Your task to perform on an android device: turn off improve location accuracy Image 0: 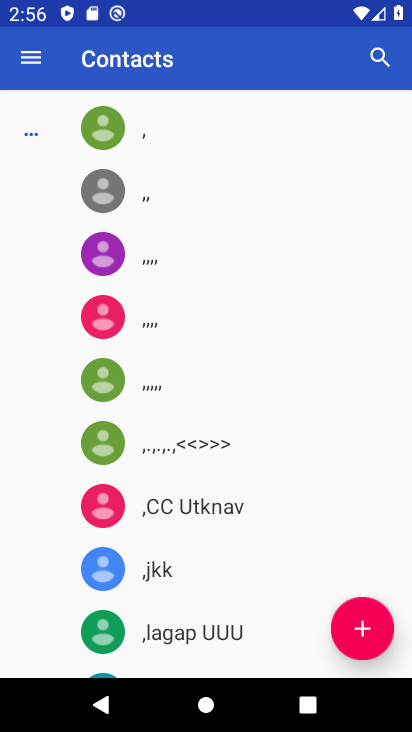
Step 0: press home button
Your task to perform on an android device: turn off improve location accuracy Image 1: 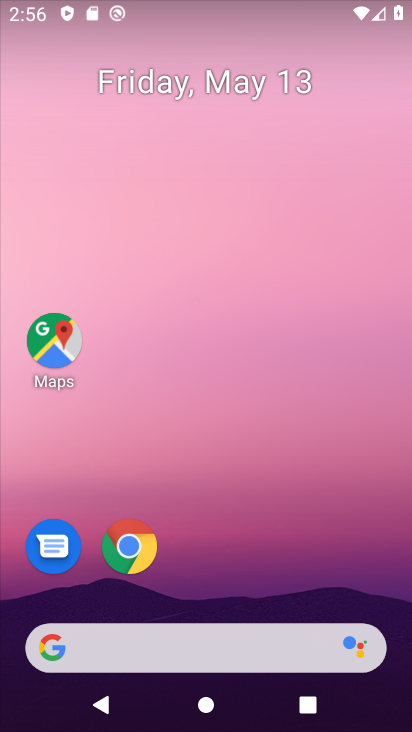
Step 1: drag from (207, 602) to (292, 42)
Your task to perform on an android device: turn off improve location accuracy Image 2: 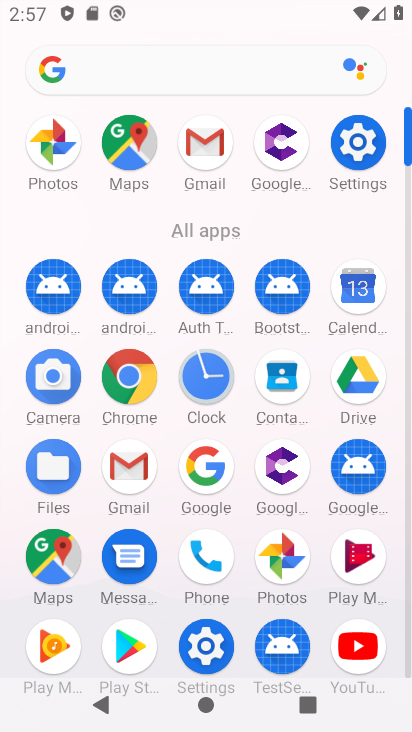
Step 2: click (351, 132)
Your task to perform on an android device: turn off improve location accuracy Image 3: 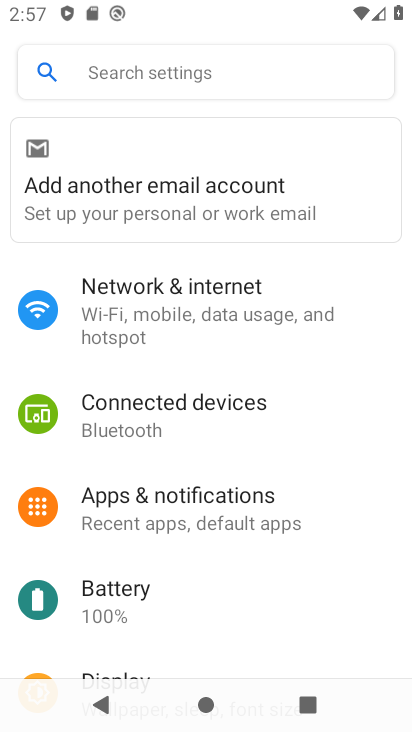
Step 3: drag from (174, 647) to (243, 158)
Your task to perform on an android device: turn off improve location accuracy Image 4: 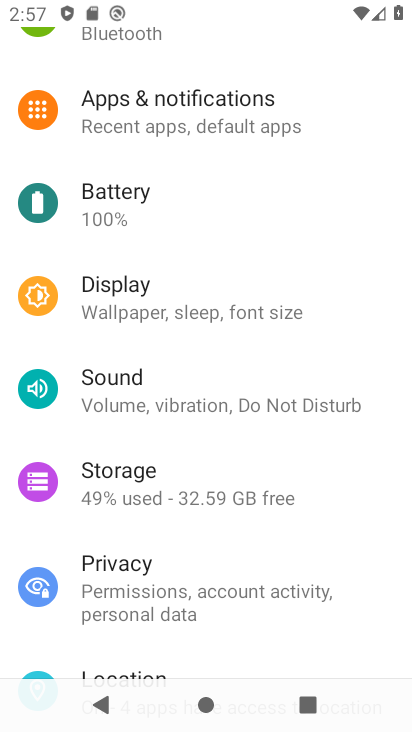
Step 4: drag from (151, 629) to (250, 292)
Your task to perform on an android device: turn off improve location accuracy Image 5: 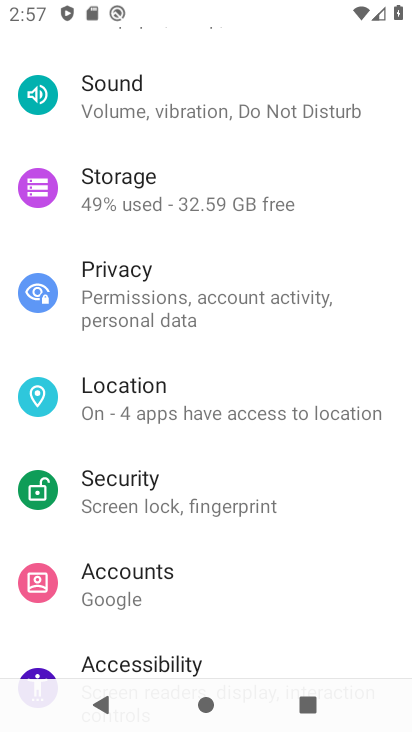
Step 5: click (157, 420)
Your task to perform on an android device: turn off improve location accuracy Image 6: 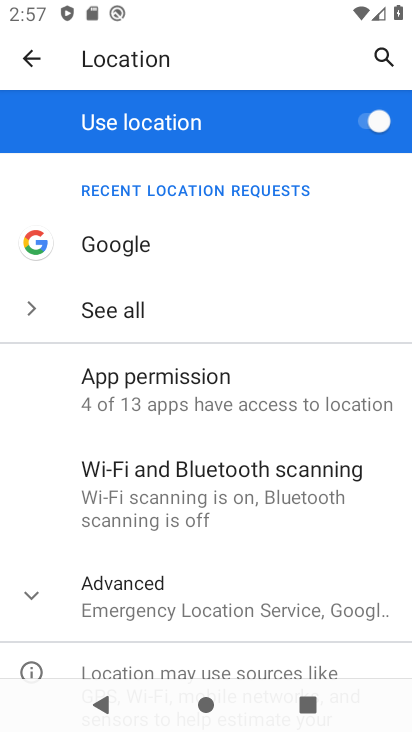
Step 6: click (218, 602)
Your task to perform on an android device: turn off improve location accuracy Image 7: 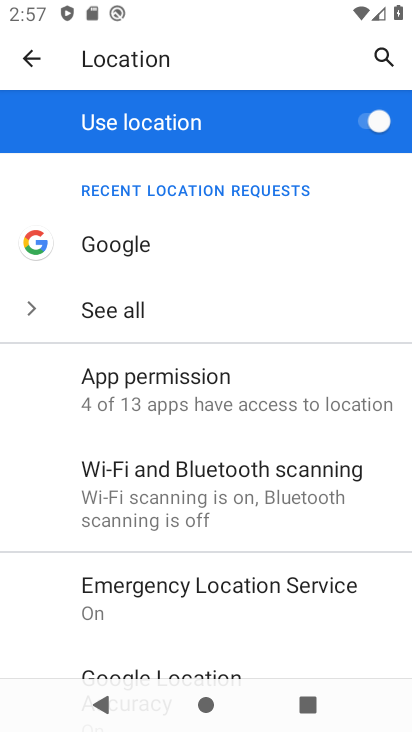
Step 7: drag from (224, 614) to (276, 42)
Your task to perform on an android device: turn off improve location accuracy Image 8: 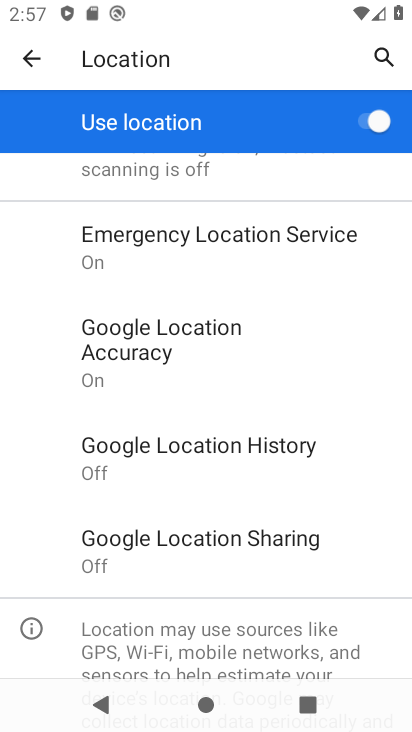
Step 8: click (138, 332)
Your task to perform on an android device: turn off improve location accuracy Image 9: 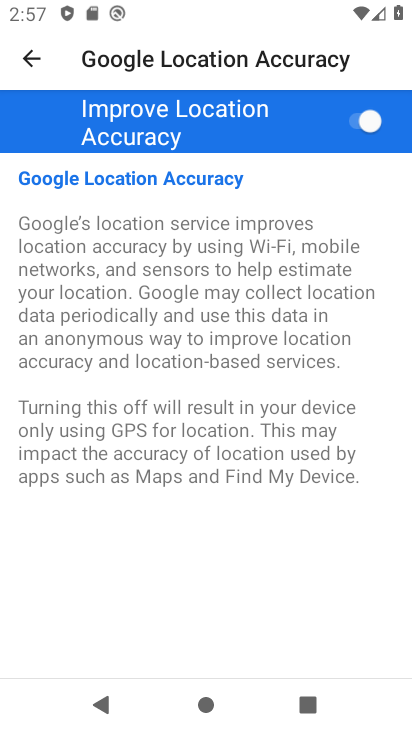
Step 9: click (341, 128)
Your task to perform on an android device: turn off improve location accuracy Image 10: 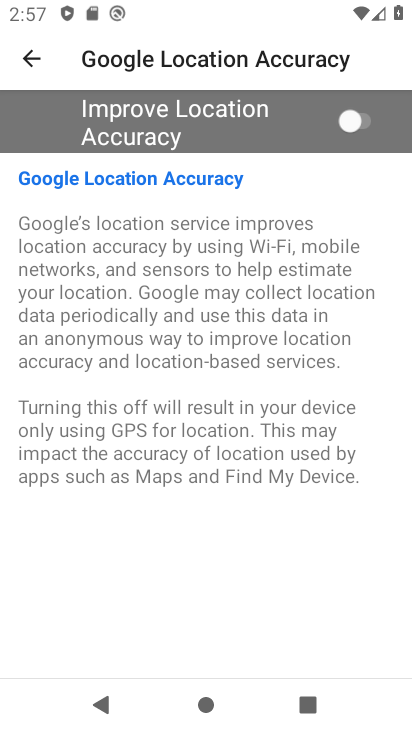
Step 10: task complete